Your task to perform on an android device: install app "Reddit" Image 0: 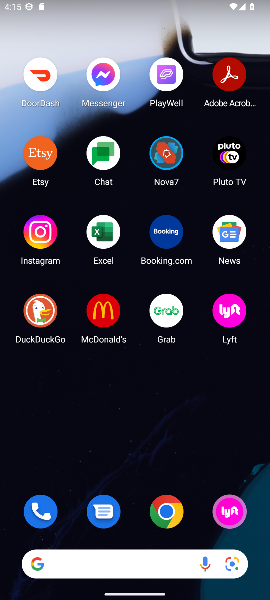
Step 0: drag from (43, 424) to (265, 4)
Your task to perform on an android device: install app "Reddit" Image 1: 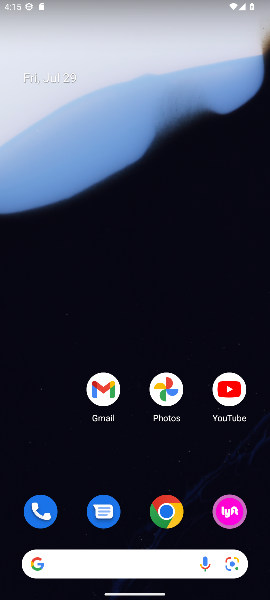
Step 1: drag from (170, 510) to (142, 233)
Your task to perform on an android device: install app "Reddit" Image 2: 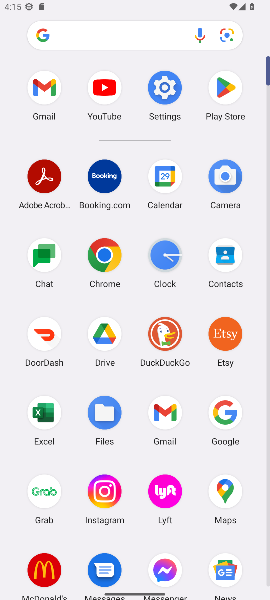
Step 2: drag from (98, 369) to (113, 161)
Your task to perform on an android device: install app "Reddit" Image 3: 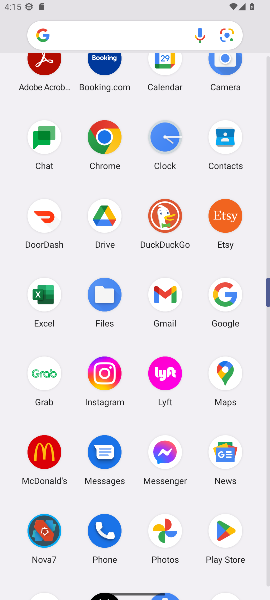
Step 3: click (236, 537)
Your task to perform on an android device: install app "Reddit" Image 4: 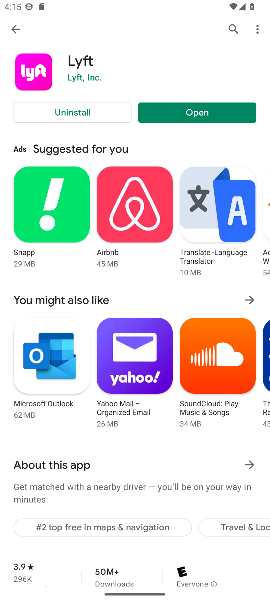
Step 4: click (17, 30)
Your task to perform on an android device: install app "Reddit" Image 5: 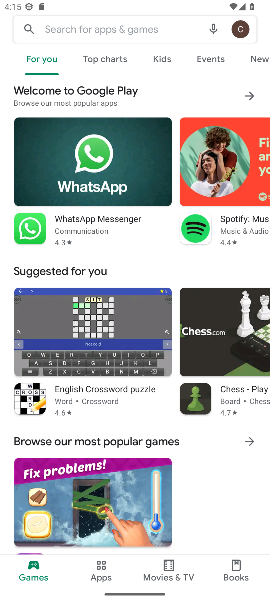
Step 5: click (71, 20)
Your task to perform on an android device: install app "Reddit" Image 6: 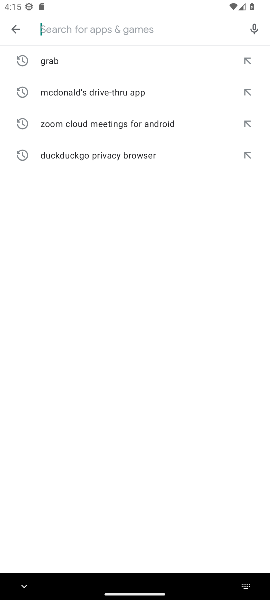
Step 6: type "Reddit"
Your task to perform on an android device: install app "Reddit" Image 7: 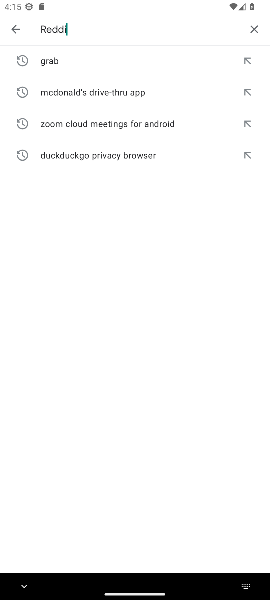
Step 7: type ""
Your task to perform on an android device: install app "Reddit" Image 8: 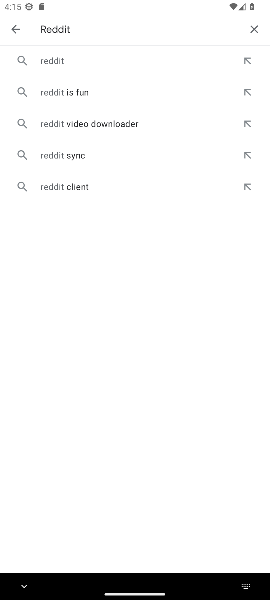
Step 8: click (68, 67)
Your task to perform on an android device: install app "Reddit" Image 9: 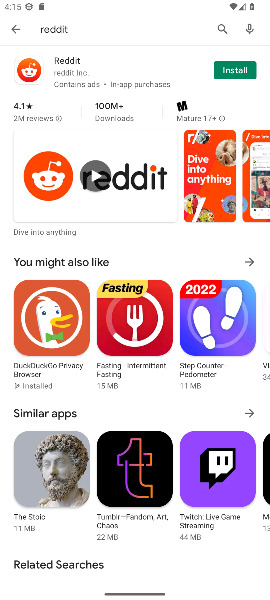
Step 9: click (231, 58)
Your task to perform on an android device: install app "Reddit" Image 10: 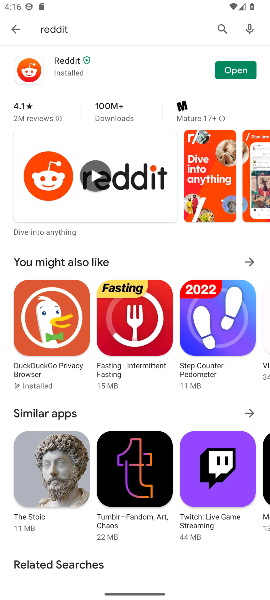
Step 10: task complete